Your task to perform on an android device: open app "Venmo" Image 0: 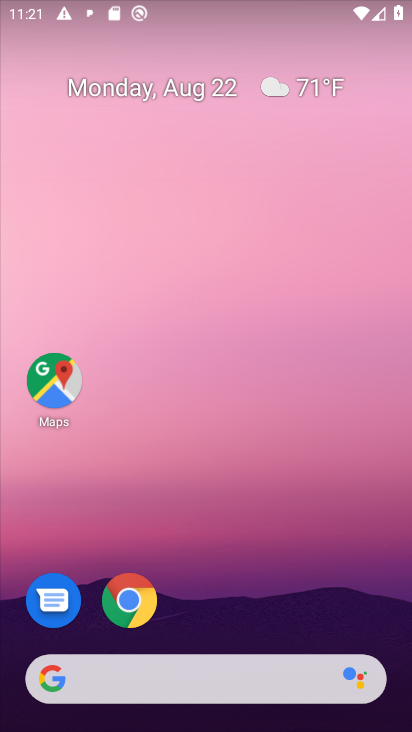
Step 0: drag from (290, 380) to (328, 55)
Your task to perform on an android device: open app "Venmo" Image 1: 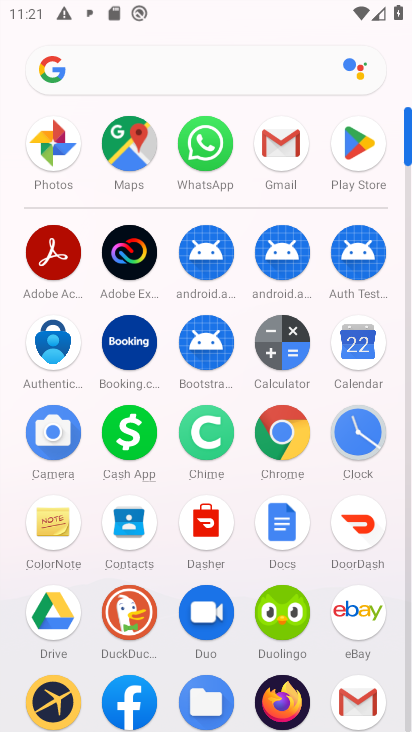
Step 1: click (353, 145)
Your task to perform on an android device: open app "Venmo" Image 2: 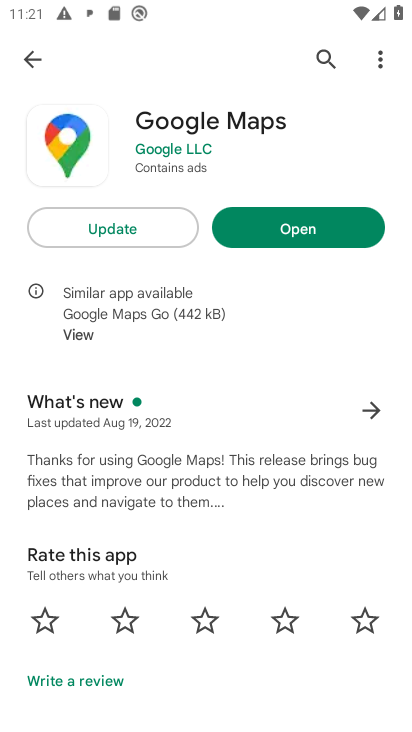
Step 2: click (316, 53)
Your task to perform on an android device: open app "Venmo" Image 3: 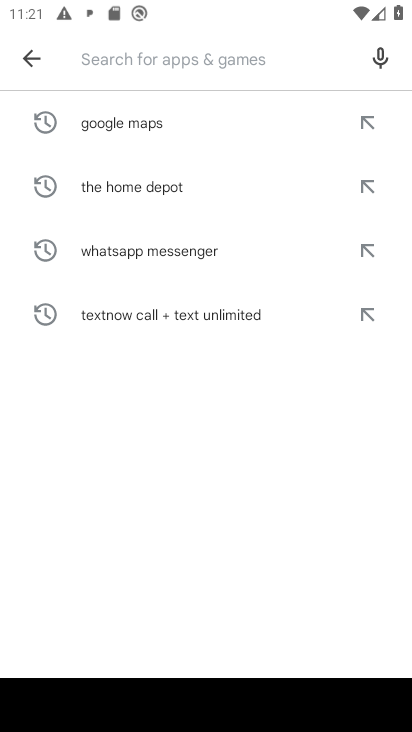
Step 3: type "Venmo"
Your task to perform on an android device: open app "Venmo" Image 4: 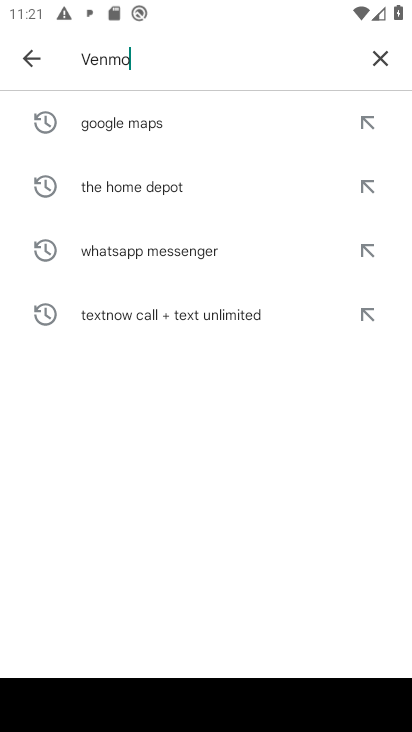
Step 4: type ""
Your task to perform on an android device: open app "Venmo" Image 5: 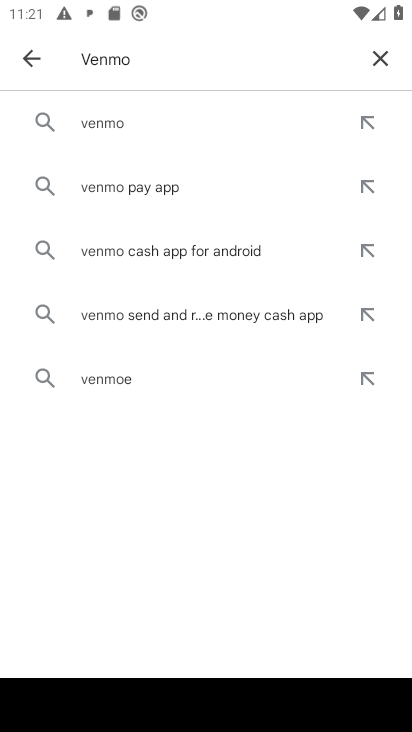
Step 5: click (139, 132)
Your task to perform on an android device: open app "Venmo" Image 6: 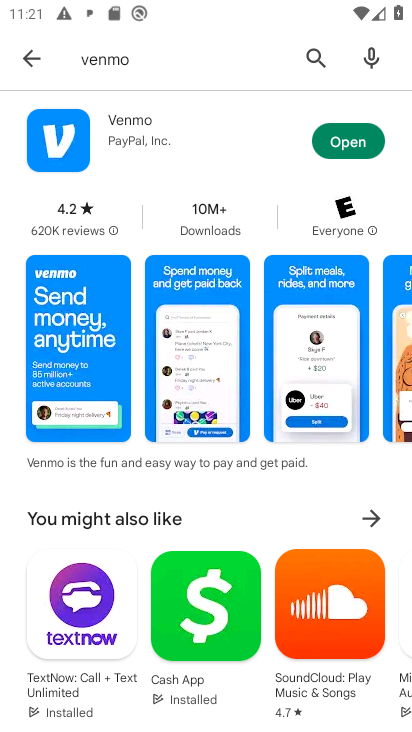
Step 6: click (356, 148)
Your task to perform on an android device: open app "Venmo" Image 7: 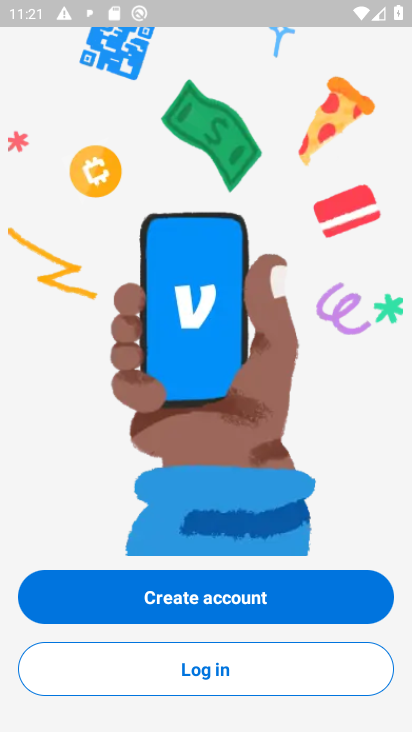
Step 7: task complete